Your task to perform on an android device: Go to display settings Image 0: 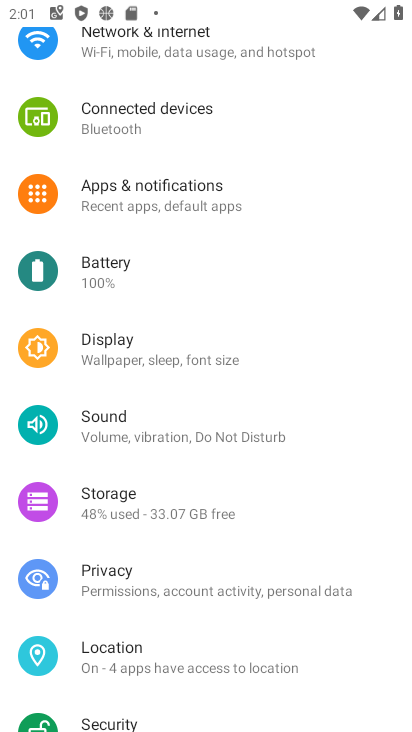
Step 0: click (212, 354)
Your task to perform on an android device: Go to display settings Image 1: 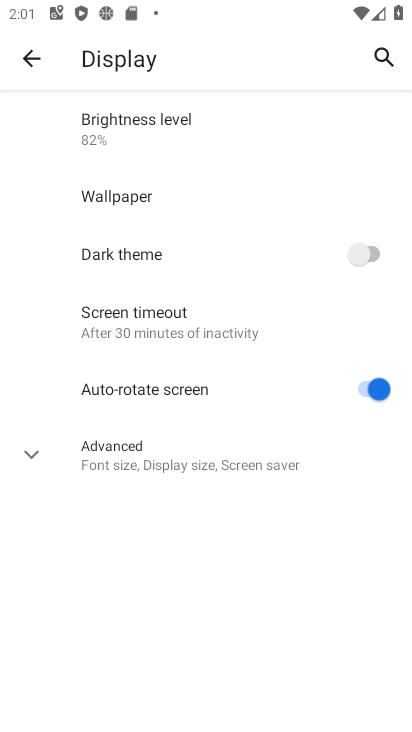
Step 1: task complete